Your task to perform on an android device: change text size in settings app Image 0: 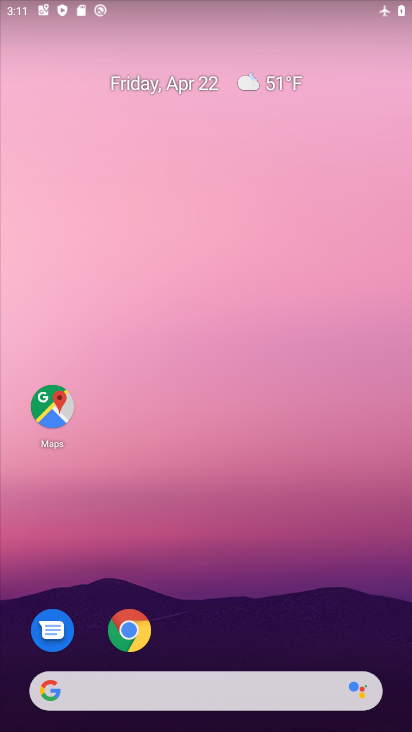
Step 0: drag from (315, 405) to (390, 0)
Your task to perform on an android device: change text size in settings app Image 1: 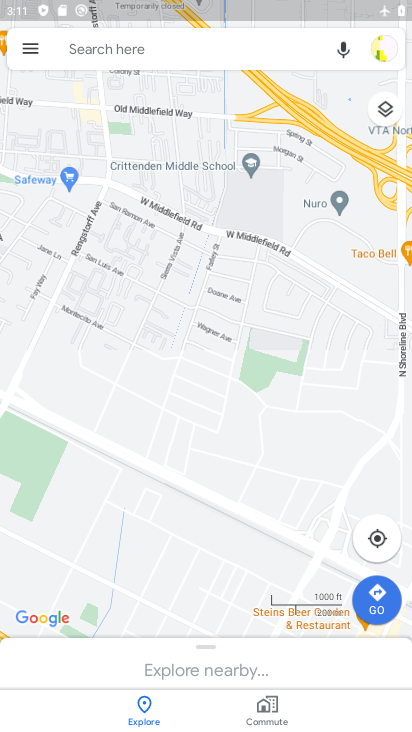
Step 1: press back button
Your task to perform on an android device: change text size in settings app Image 2: 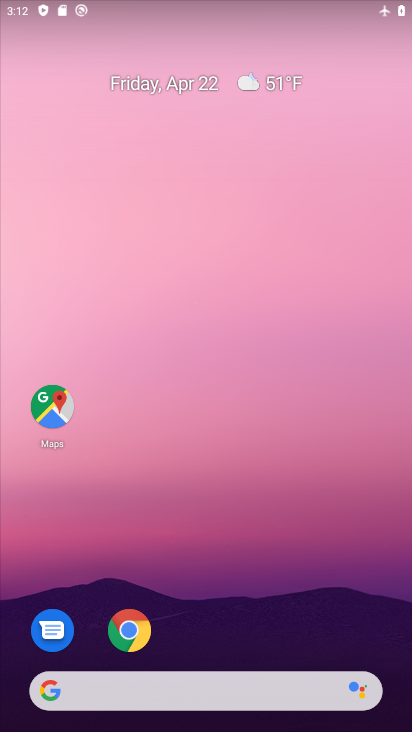
Step 2: drag from (279, 496) to (295, 27)
Your task to perform on an android device: change text size in settings app Image 3: 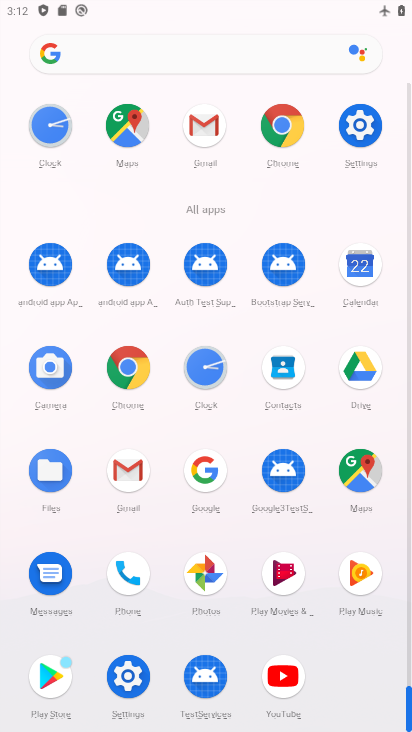
Step 3: click (130, 674)
Your task to perform on an android device: change text size in settings app Image 4: 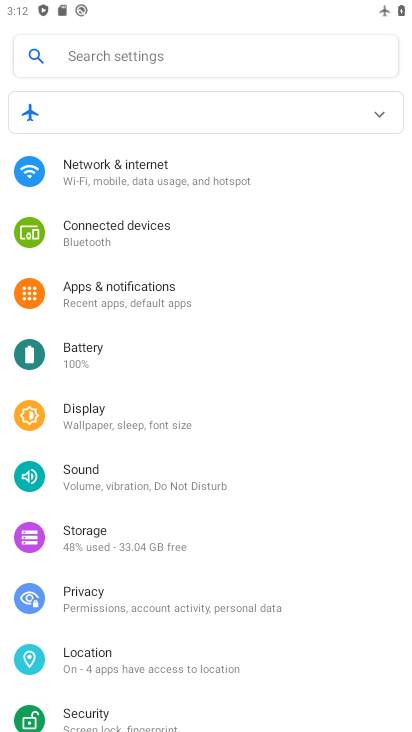
Step 4: drag from (210, 518) to (231, 149)
Your task to perform on an android device: change text size in settings app Image 5: 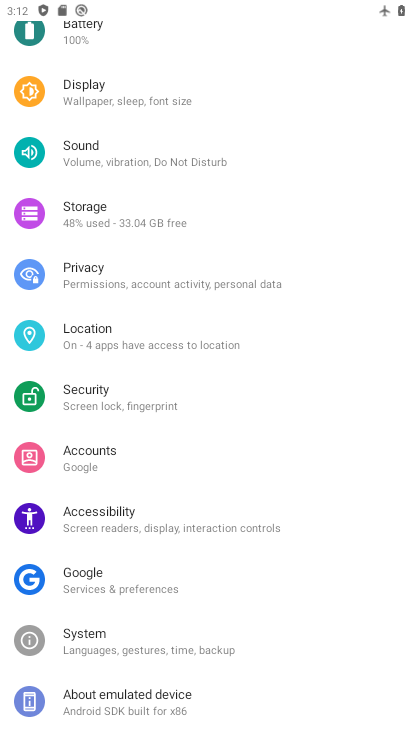
Step 5: drag from (331, 580) to (343, 176)
Your task to perform on an android device: change text size in settings app Image 6: 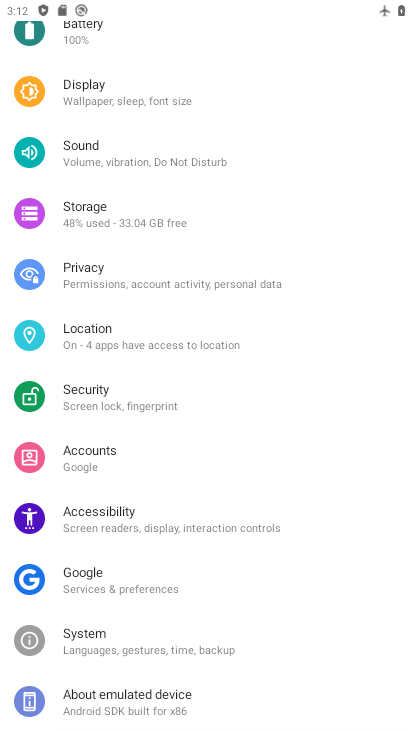
Step 6: drag from (285, 171) to (283, 555)
Your task to perform on an android device: change text size in settings app Image 7: 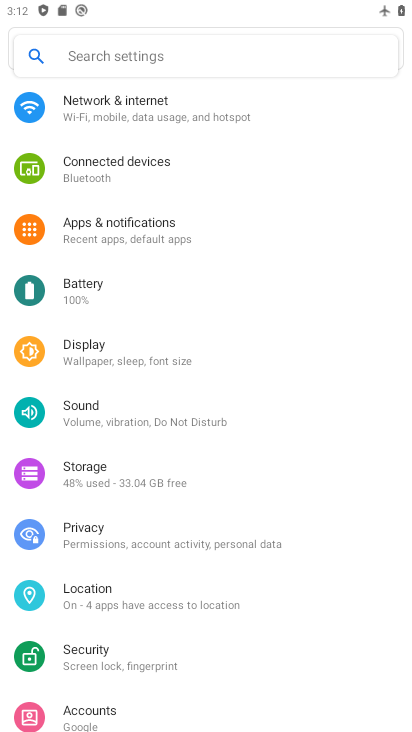
Step 7: drag from (316, 649) to (345, 135)
Your task to perform on an android device: change text size in settings app Image 8: 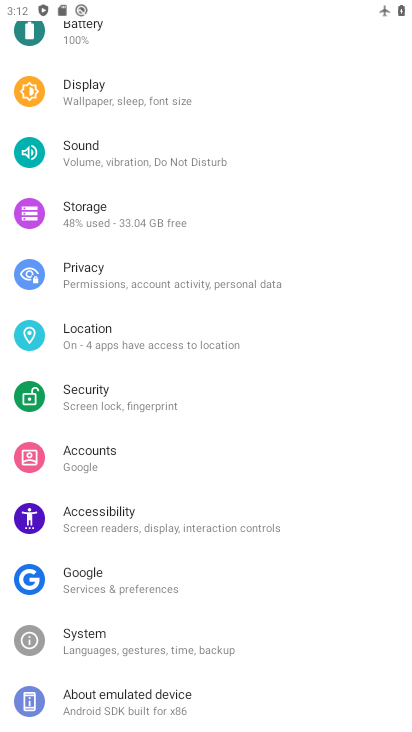
Step 8: click (161, 645)
Your task to perform on an android device: change text size in settings app Image 9: 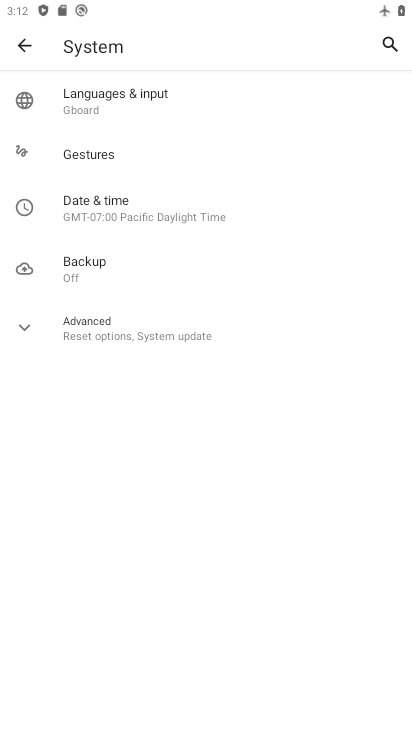
Step 9: click (115, 330)
Your task to perform on an android device: change text size in settings app Image 10: 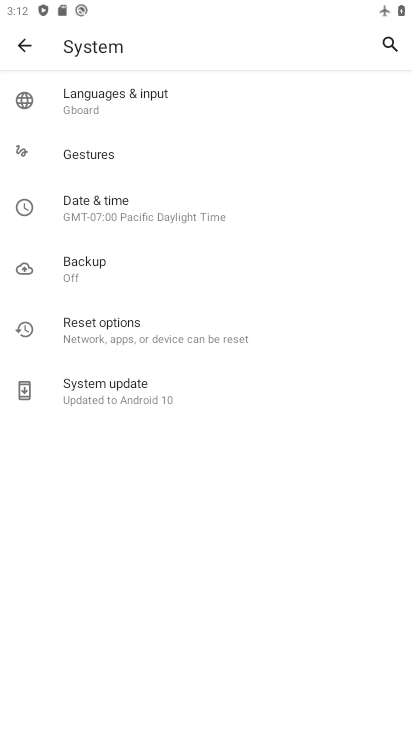
Step 10: click (101, 122)
Your task to perform on an android device: change text size in settings app Image 11: 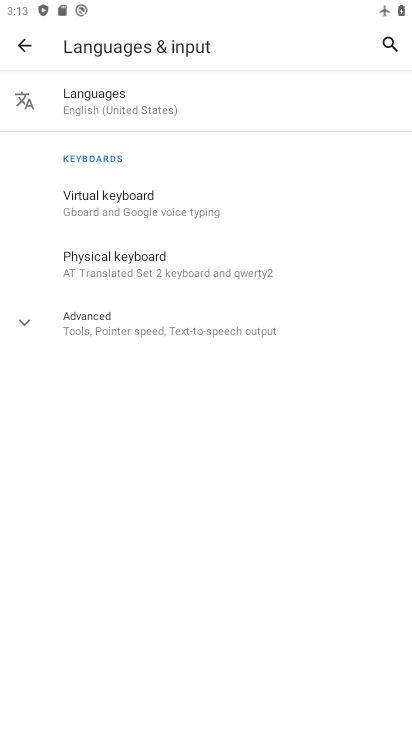
Step 11: click (132, 212)
Your task to perform on an android device: change text size in settings app Image 12: 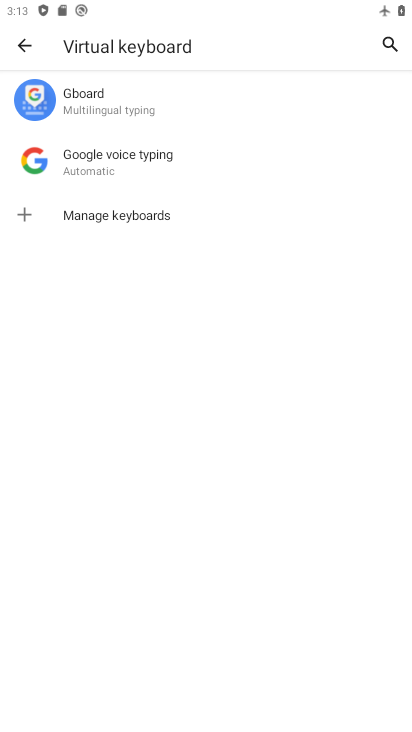
Step 12: click (142, 116)
Your task to perform on an android device: change text size in settings app Image 13: 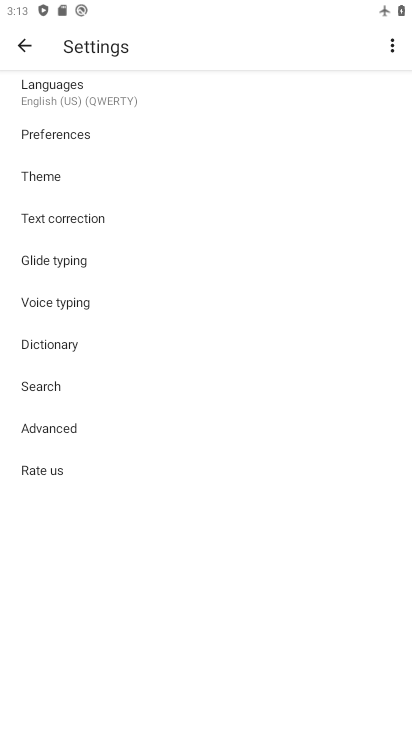
Step 13: click (73, 181)
Your task to perform on an android device: change text size in settings app Image 14: 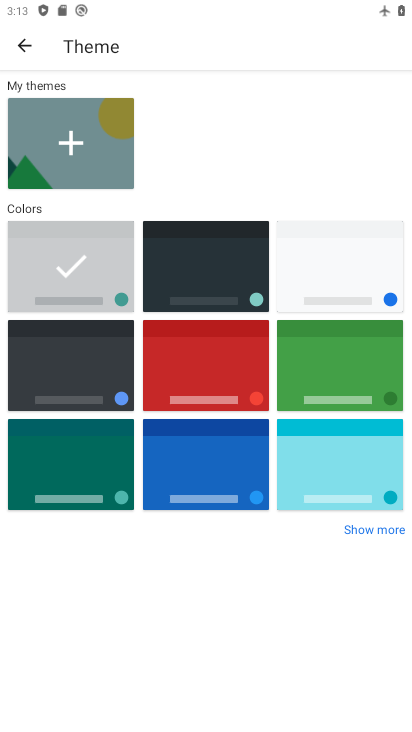
Step 14: click (339, 456)
Your task to perform on an android device: change text size in settings app Image 15: 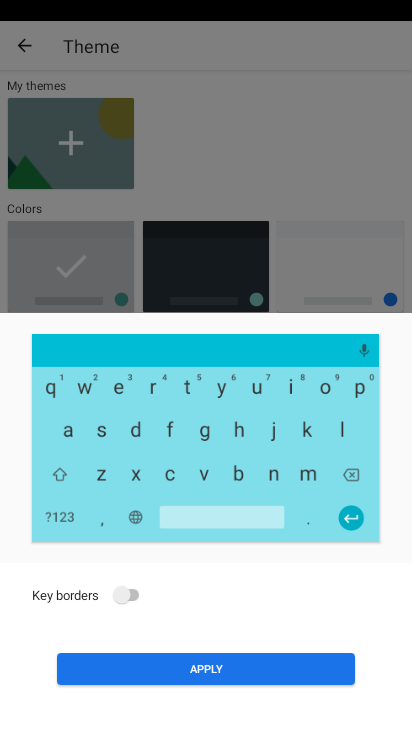
Step 15: click (190, 678)
Your task to perform on an android device: change text size in settings app Image 16: 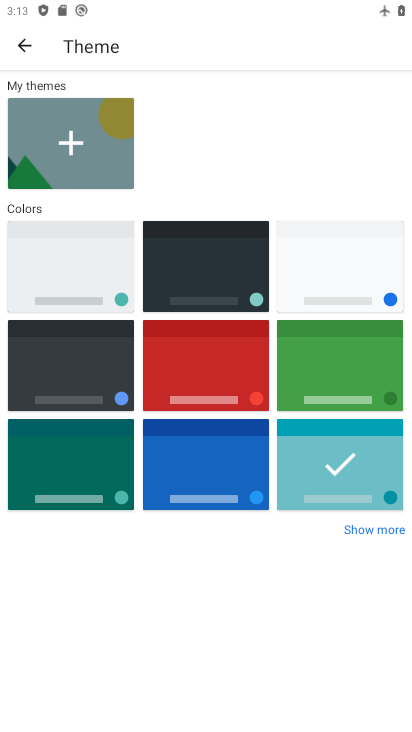
Step 16: task complete